Your task to perform on an android device: find photos in the google photos app Image 0: 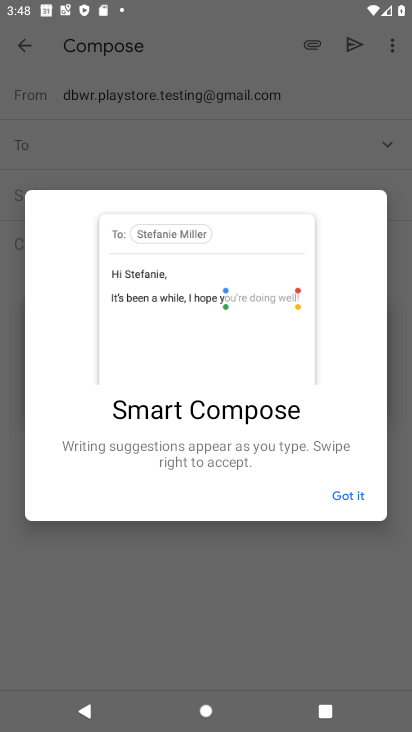
Step 0: press home button
Your task to perform on an android device: find photos in the google photos app Image 1: 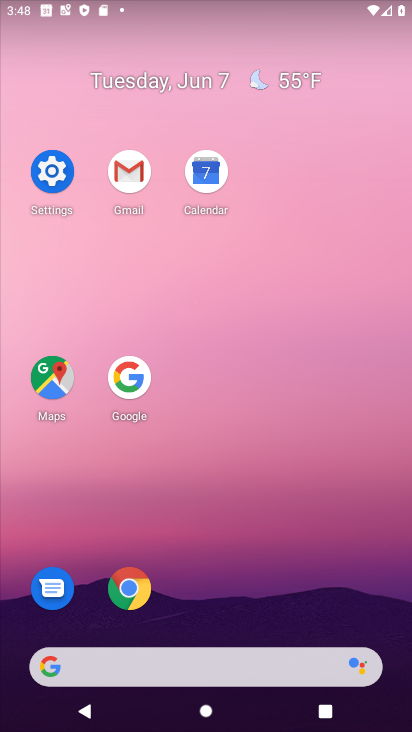
Step 1: drag from (236, 551) to (315, 148)
Your task to perform on an android device: find photos in the google photos app Image 2: 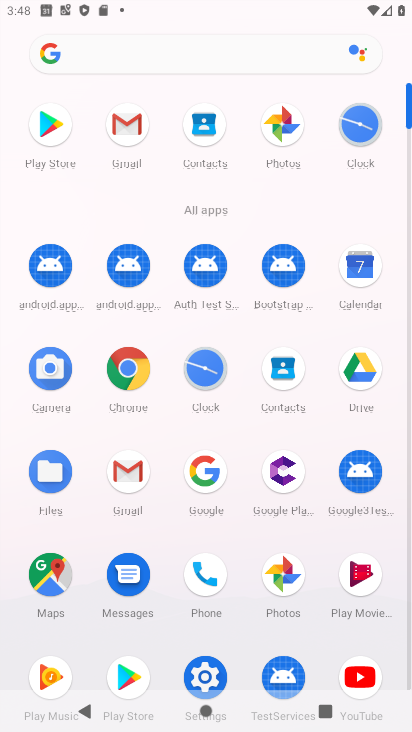
Step 2: click (281, 133)
Your task to perform on an android device: find photos in the google photos app Image 3: 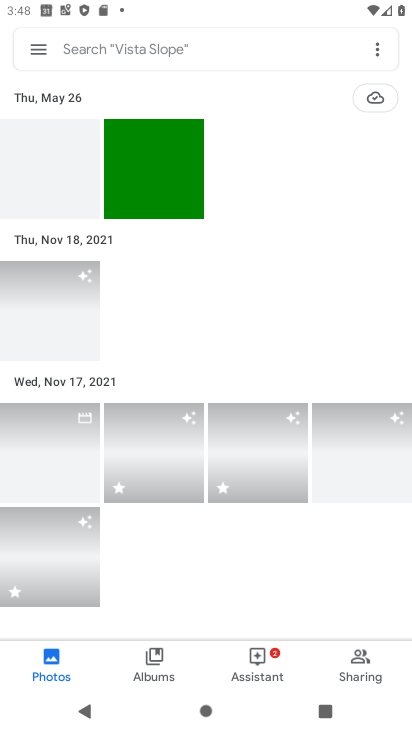
Step 3: task complete